Your task to perform on an android device: Go to location settings Image 0: 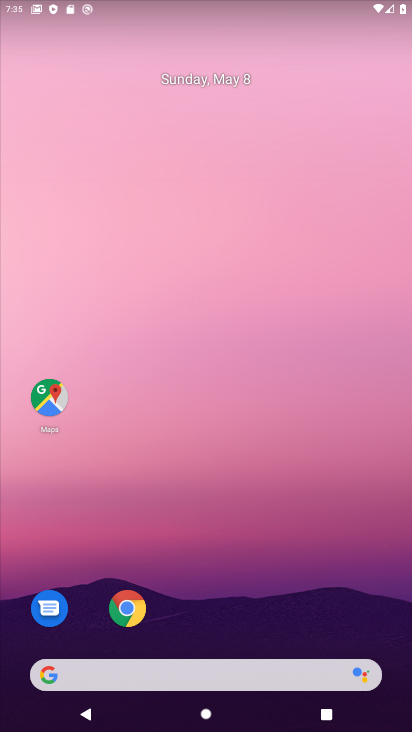
Step 0: drag from (230, 595) to (235, 265)
Your task to perform on an android device: Go to location settings Image 1: 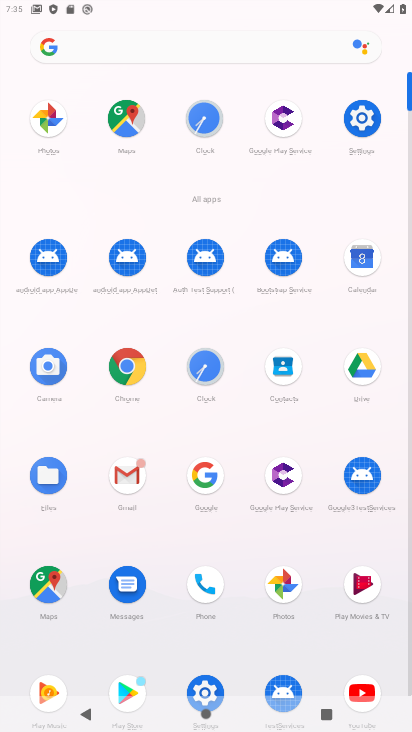
Step 1: click (358, 120)
Your task to perform on an android device: Go to location settings Image 2: 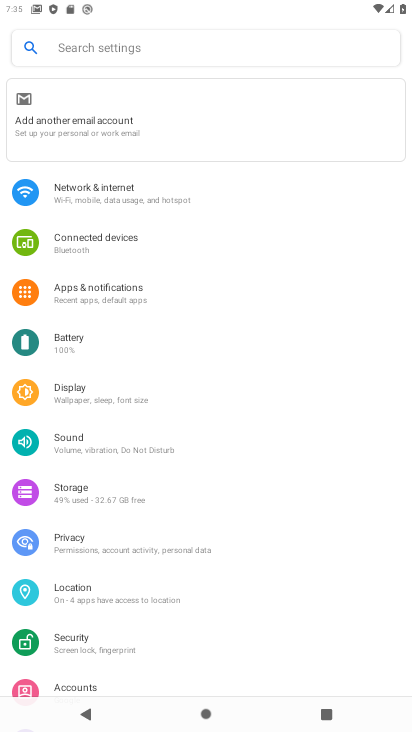
Step 2: click (95, 597)
Your task to perform on an android device: Go to location settings Image 3: 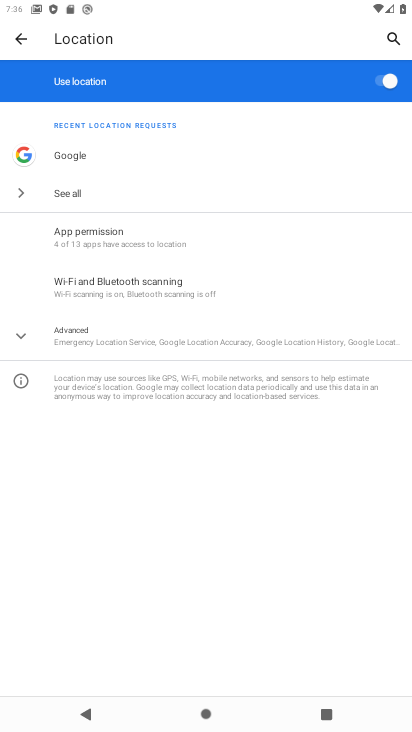
Step 3: task complete